Your task to perform on an android device: Open network settings Image 0: 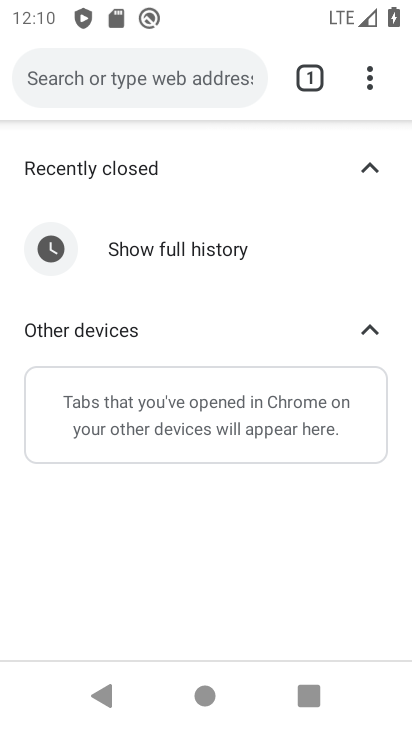
Step 0: press home button
Your task to perform on an android device: Open network settings Image 1: 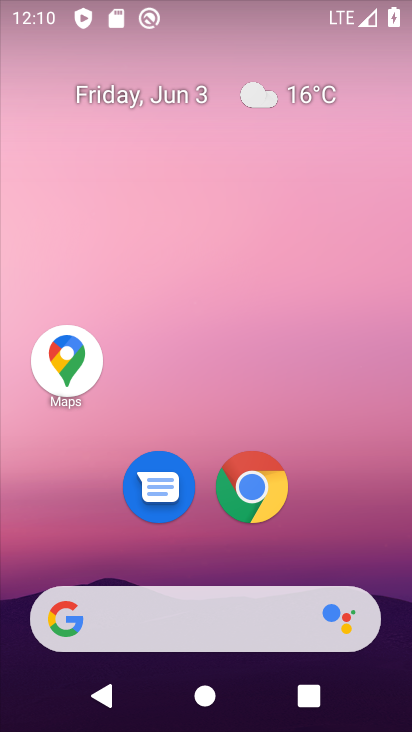
Step 1: drag from (379, 530) to (305, 169)
Your task to perform on an android device: Open network settings Image 2: 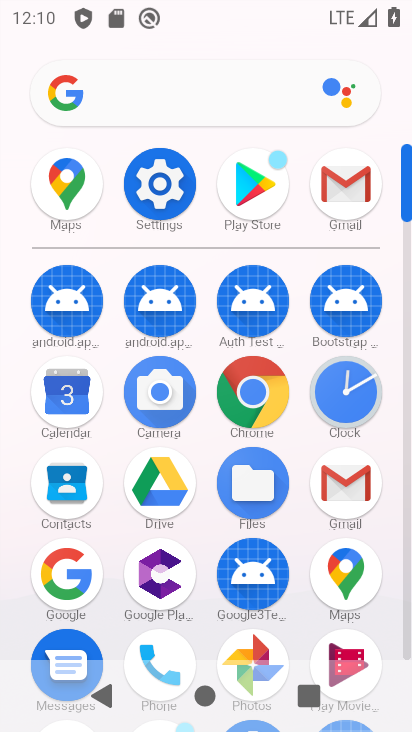
Step 2: click (167, 193)
Your task to perform on an android device: Open network settings Image 3: 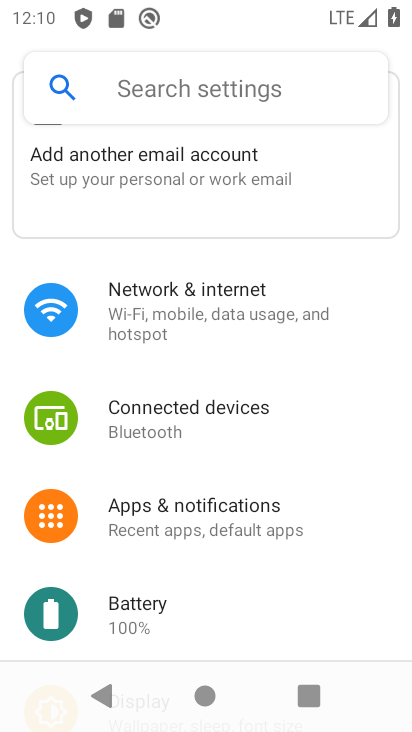
Step 3: click (185, 305)
Your task to perform on an android device: Open network settings Image 4: 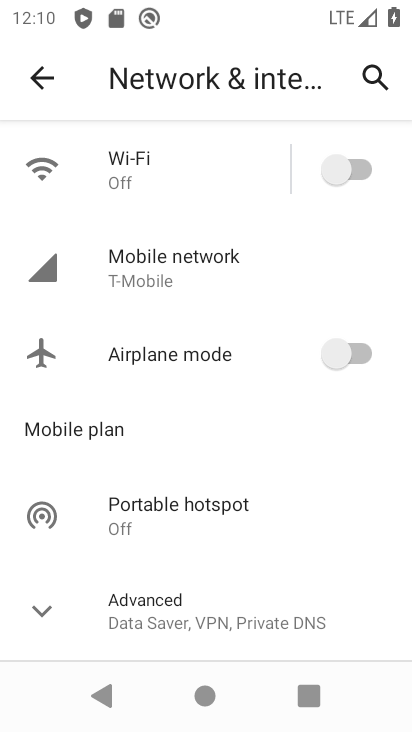
Step 4: task complete